Your task to perform on an android device: Open battery settings Image 0: 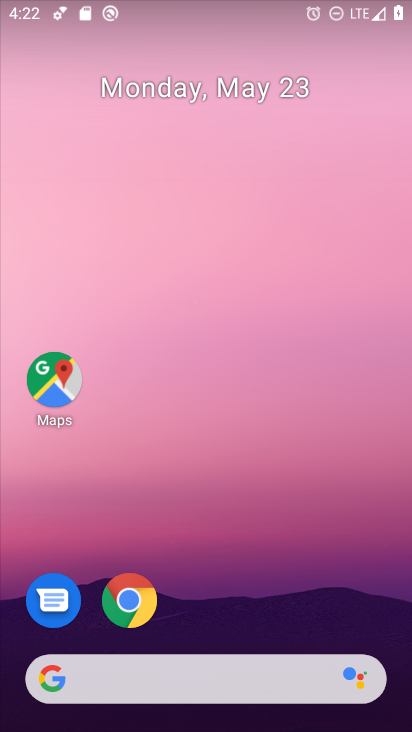
Step 0: drag from (313, 633) to (248, 9)
Your task to perform on an android device: Open battery settings Image 1: 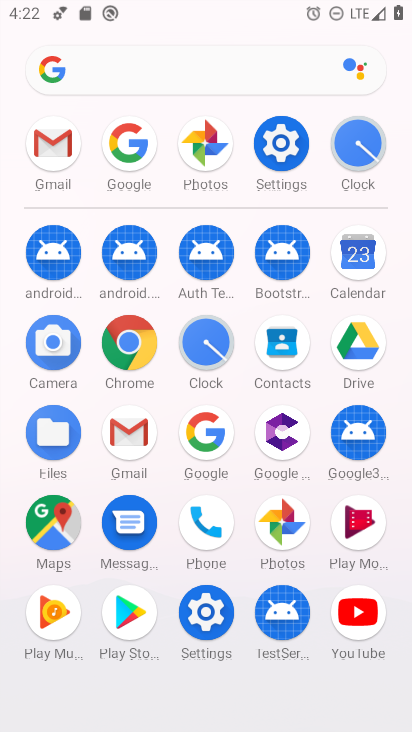
Step 1: click (286, 150)
Your task to perform on an android device: Open battery settings Image 2: 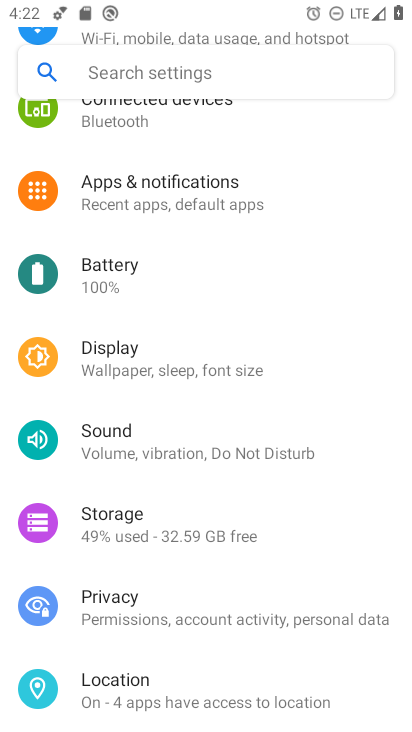
Step 2: click (112, 281)
Your task to perform on an android device: Open battery settings Image 3: 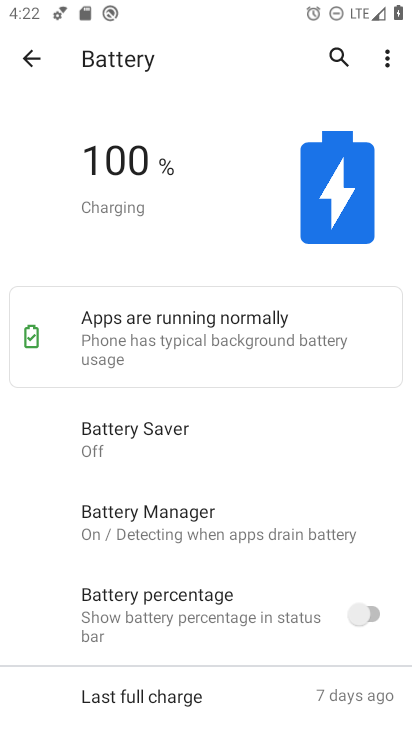
Step 3: task complete